Your task to perform on an android device: What's the weather? Image 0: 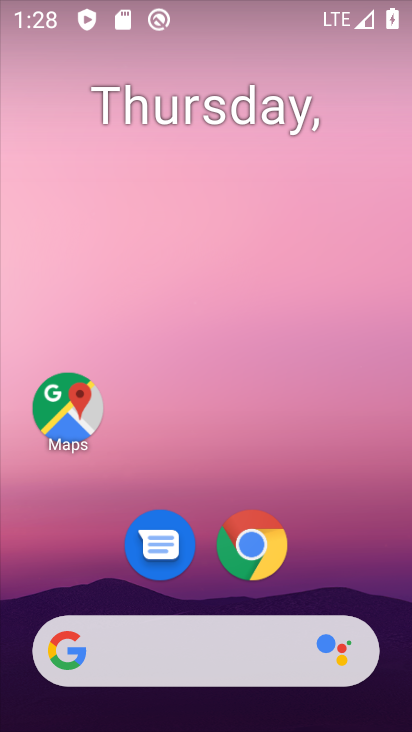
Step 0: click (227, 657)
Your task to perform on an android device: What's the weather? Image 1: 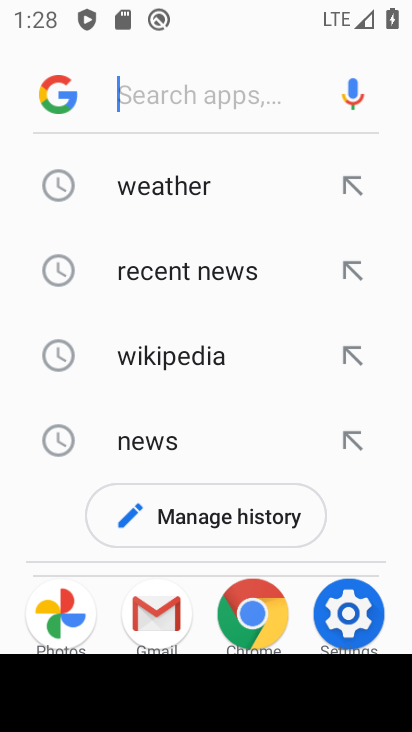
Step 1: type "What's the weather?"
Your task to perform on an android device: What's the weather? Image 2: 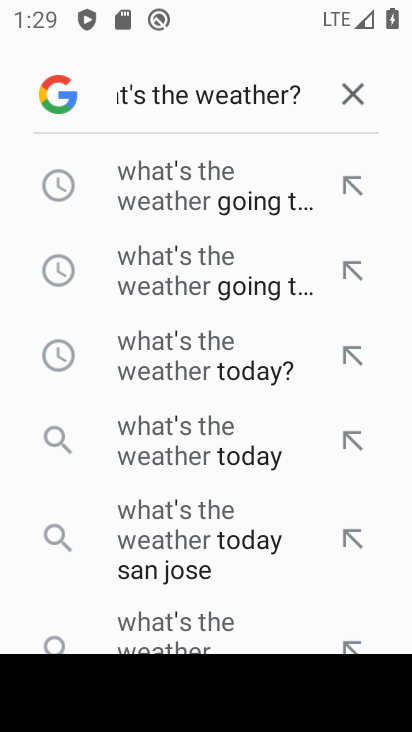
Step 2: click (206, 185)
Your task to perform on an android device: What's the weather? Image 3: 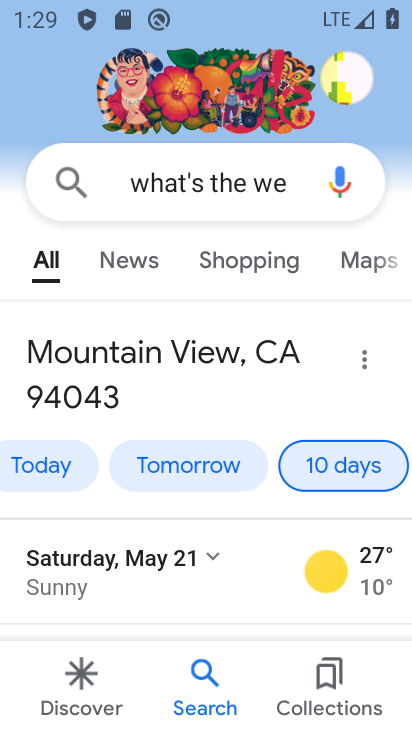
Step 3: task complete